Your task to perform on an android device: Open maps Image 0: 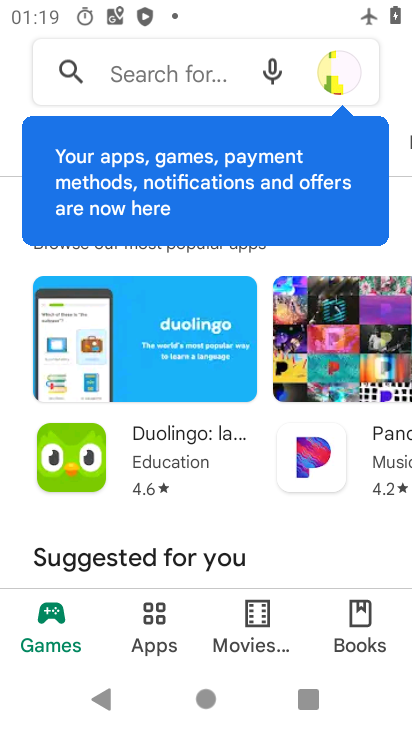
Step 0: press home button
Your task to perform on an android device: Open maps Image 1: 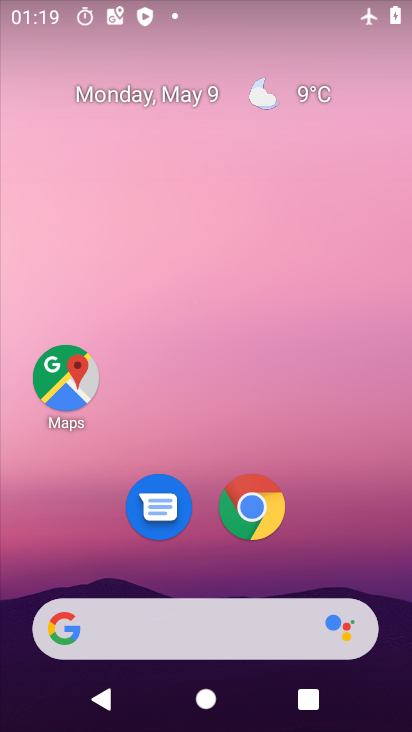
Step 1: drag from (219, 728) to (220, 28)
Your task to perform on an android device: Open maps Image 2: 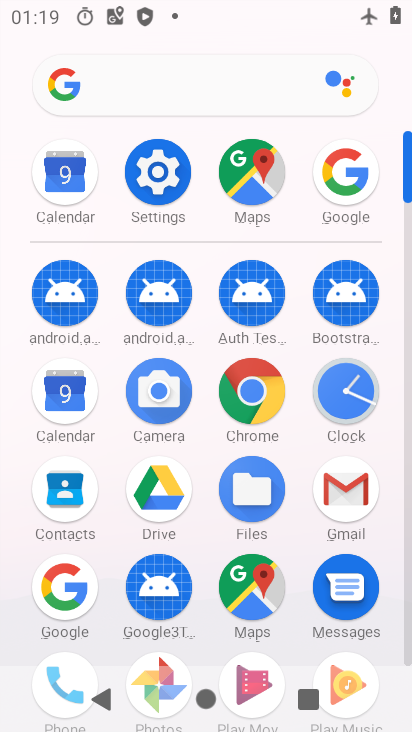
Step 2: click (238, 578)
Your task to perform on an android device: Open maps Image 3: 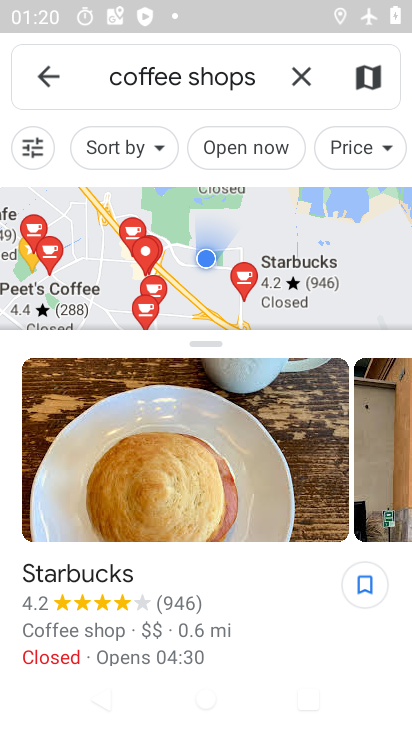
Step 3: task complete